Your task to perform on an android device: add a contact Image 0: 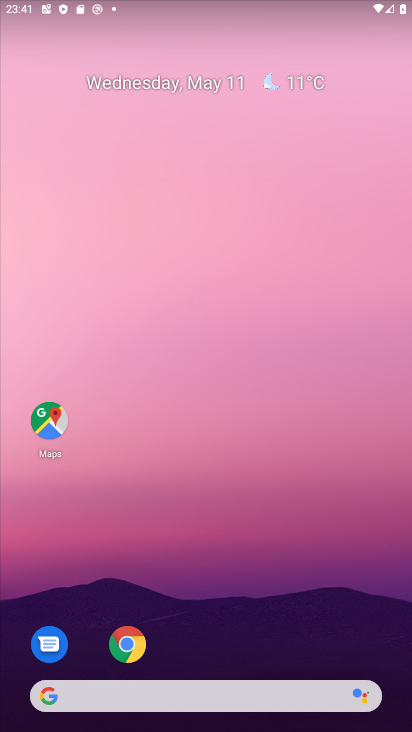
Step 0: drag from (217, 671) to (245, 94)
Your task to perform on an android device: add a contact Image 1: 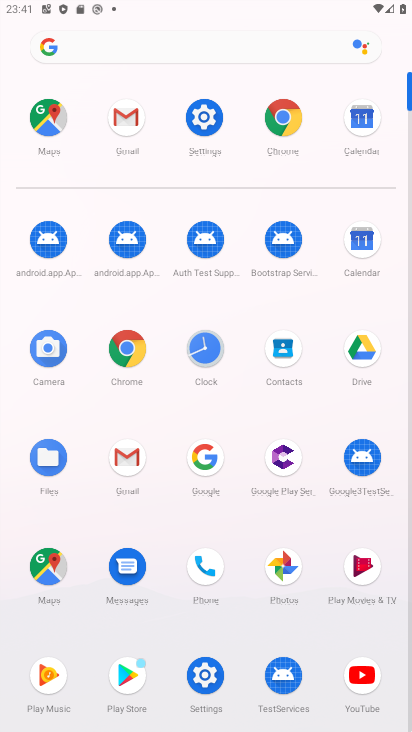
Step 1: click (357, 237)
Your task to perform on an android device: add a contact Image 2: 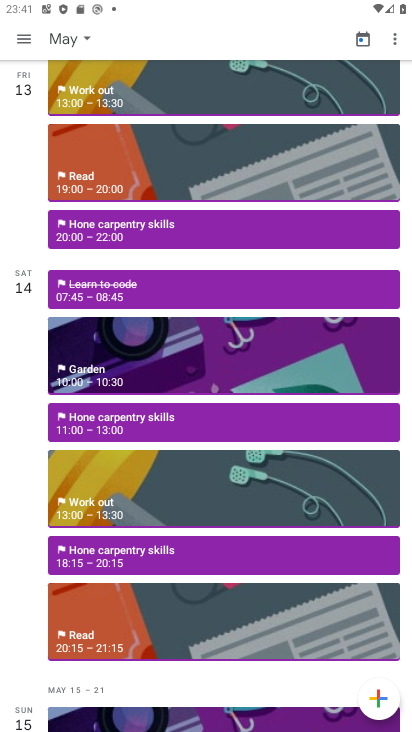
Step 2: press home button
Your task to perform on an android device: add a contact Image 3: 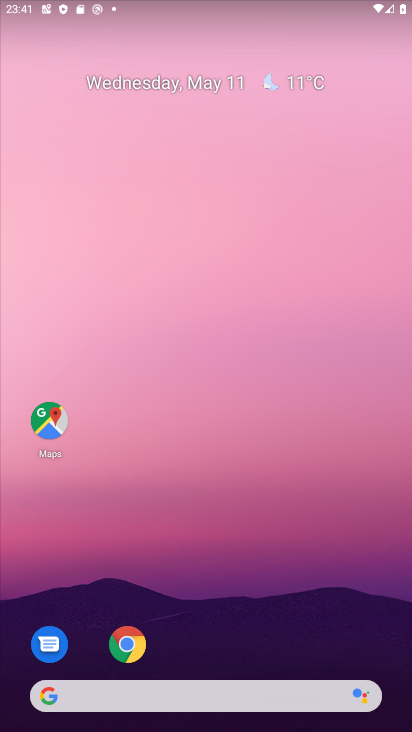
Step 3: drag from (210, 629) to (223, 52)
Your task to perform on an android device: add a contact Image 4: 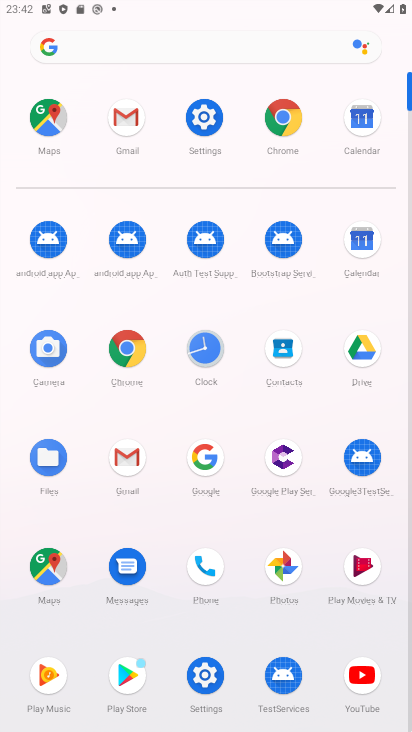
Step 4: click (281, 346)
Your task to perform on an android device: add a contact Image 5: 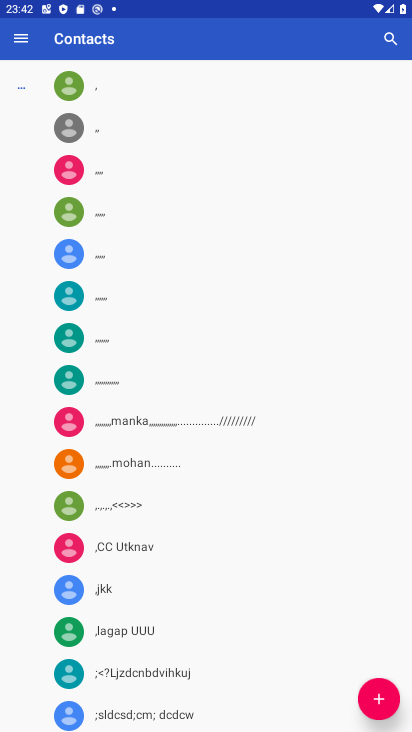
Step 5: click (371, 696)
Your task to perform on an android device: add a contact Image 6: 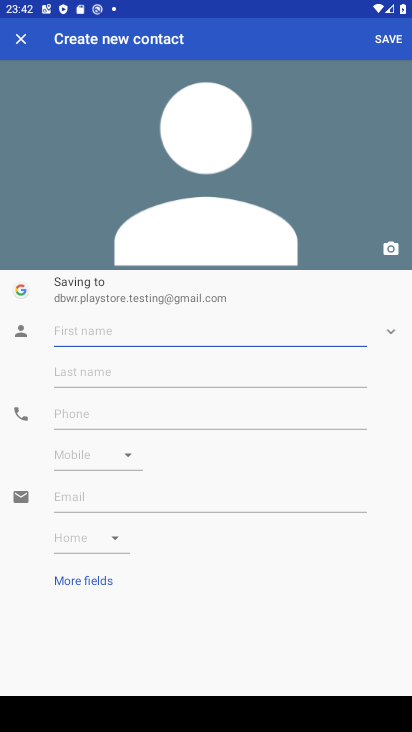
Step 6: type "htf"
Your task to perform on an android device: add a contact Image 7: 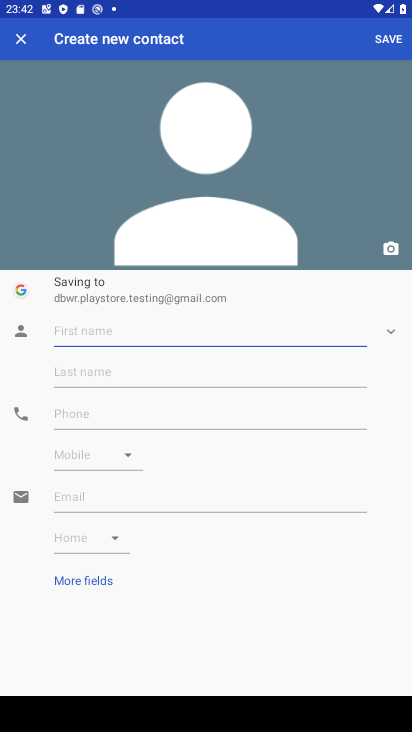
Step 7: click (393, 38)
Your task to perform on an android device: add a contact Image 8: 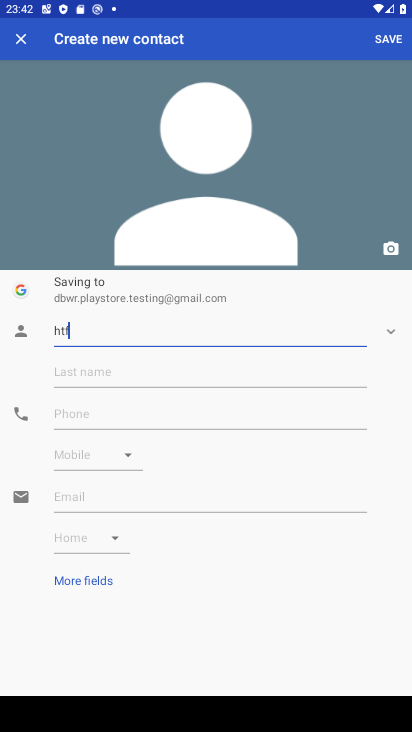
Step 8: task complete